Your task to perform on an android device: set default search engine in the chrome app Image 0: 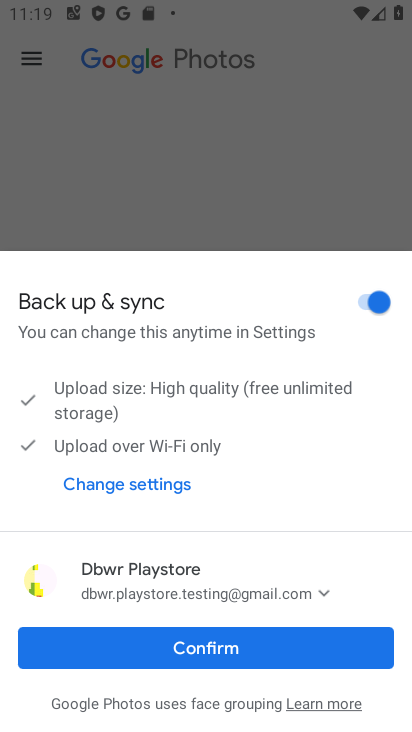
Step 0: press home button
Your task to perform on an android device: set default search engine in the chrome app Image 1: 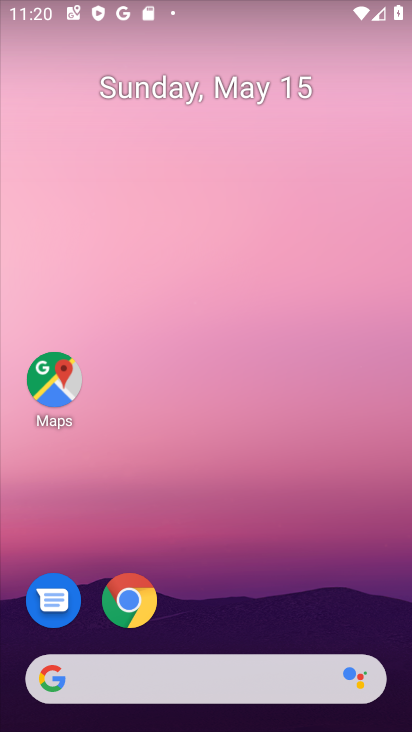
Step 1: click (109, 592)
Your task to perform on an android device: set default search engine in the chrome app Image 2: 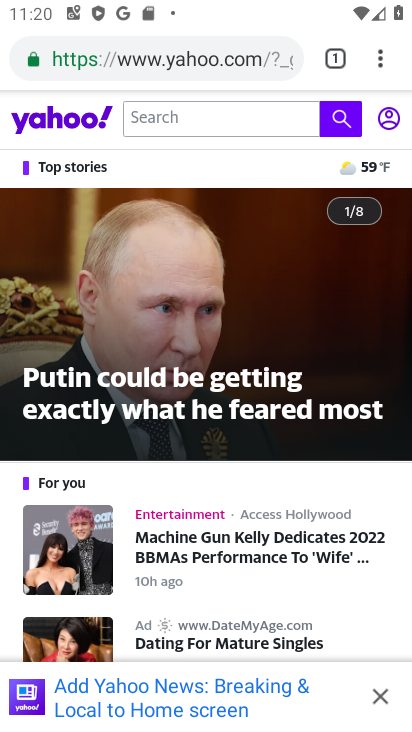
Step 2: click (367, 70)
Your task to perform on an android device: set default search engine in the chrome app Image 3: 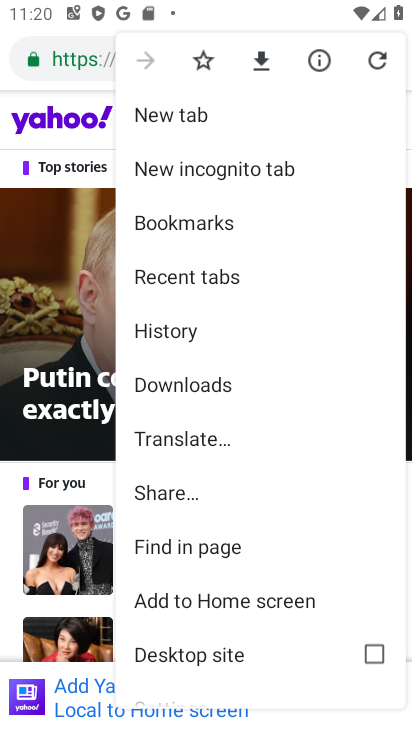
Step 3: drag from (209, 614) to (197, 30)
Your task to perform on an android device: set default search engine in the chrome app Image 4: 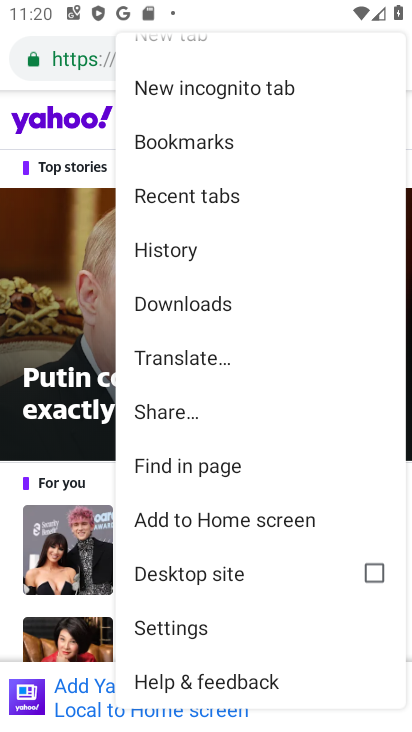
Step 4: click (164, 638)
Your task to perform on an android device: set default search engine in the chrome app Image 5: 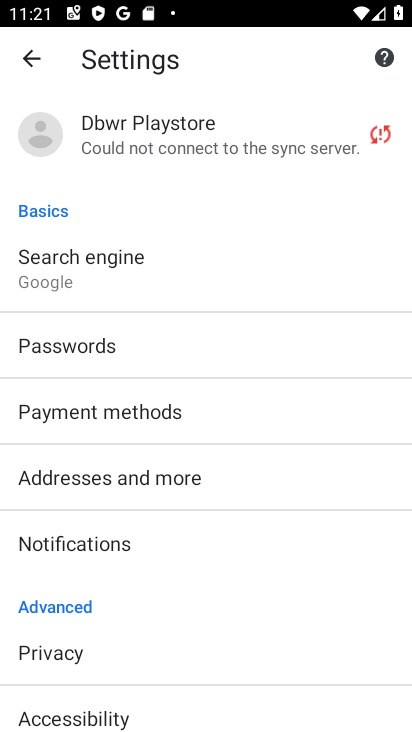
Step 5: click (92, 272)
Your task to perform on an android device: set default search engine in the chrome app Image 6: 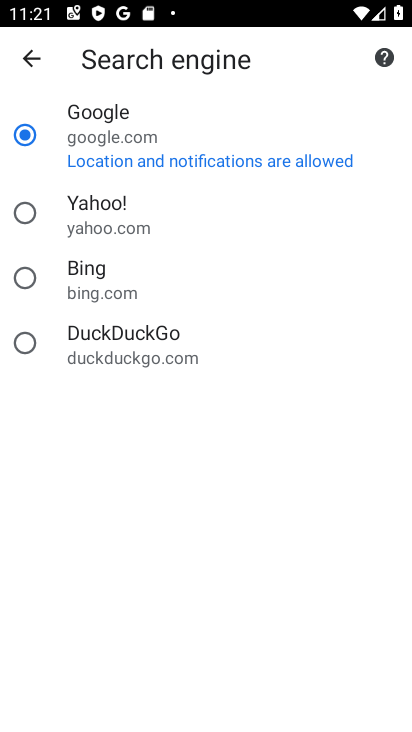
Step 6: click (107, 243)
Your task to perform on an android device: set default search engine in the chrome app Image 7: 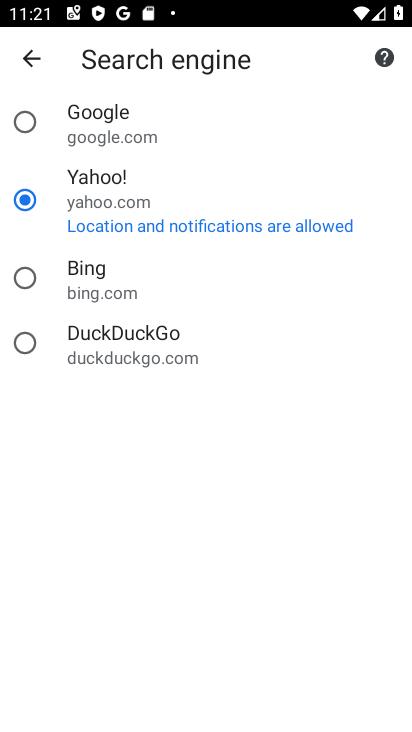
Step 7: task complete